Your task to perform on an android device: move an email to a new category in the gmail app Image 0: 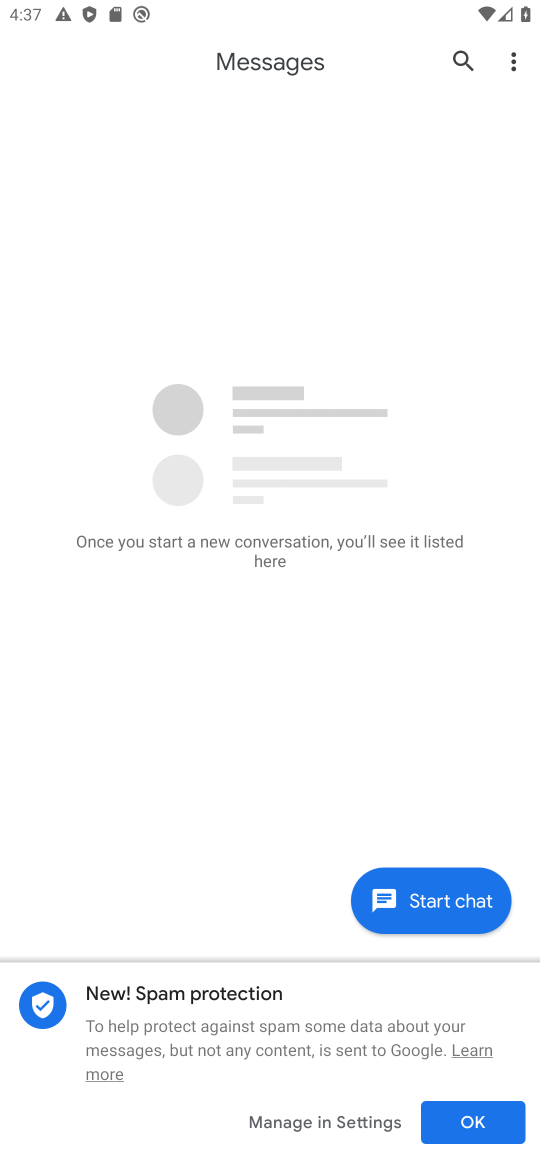
Step 0: press home button
Your task to perform on an android device: move an email to a new category in the gmail app Image 1: 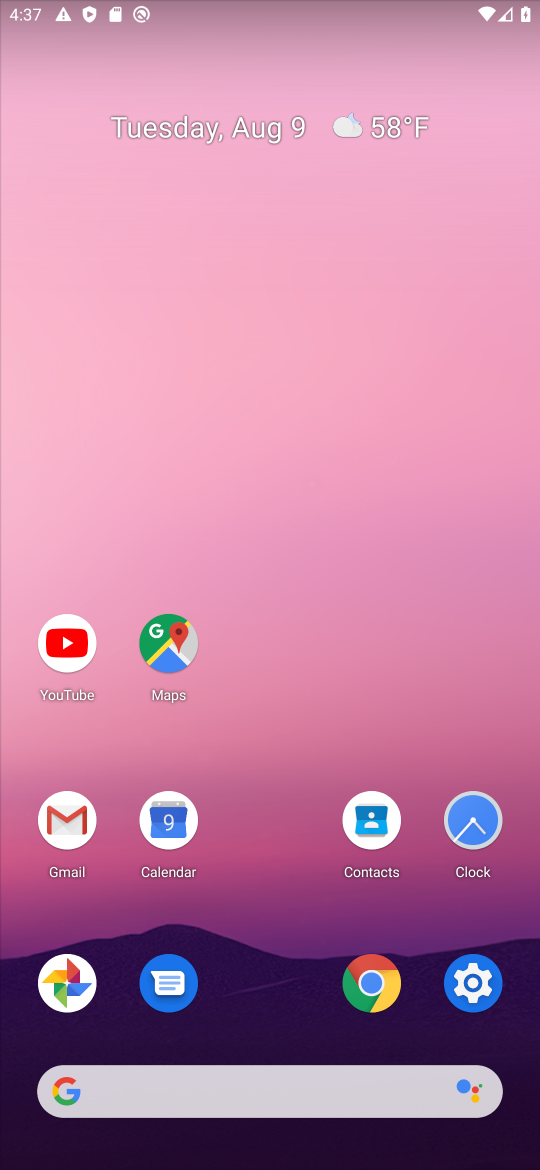
Step 1: click (71, 814)
Your task to perform on an android device: move an email to a new category in the gmail app Image 2: 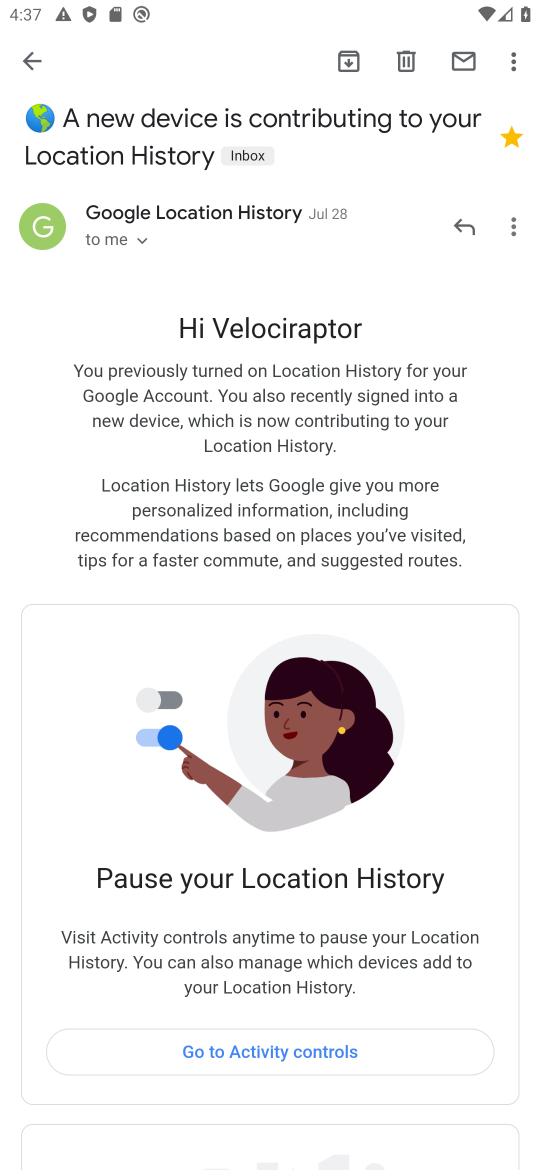
Step 2: click (506, 58)
Your task to perform on an android device: move an email to a new category in the gmail app Image 3: 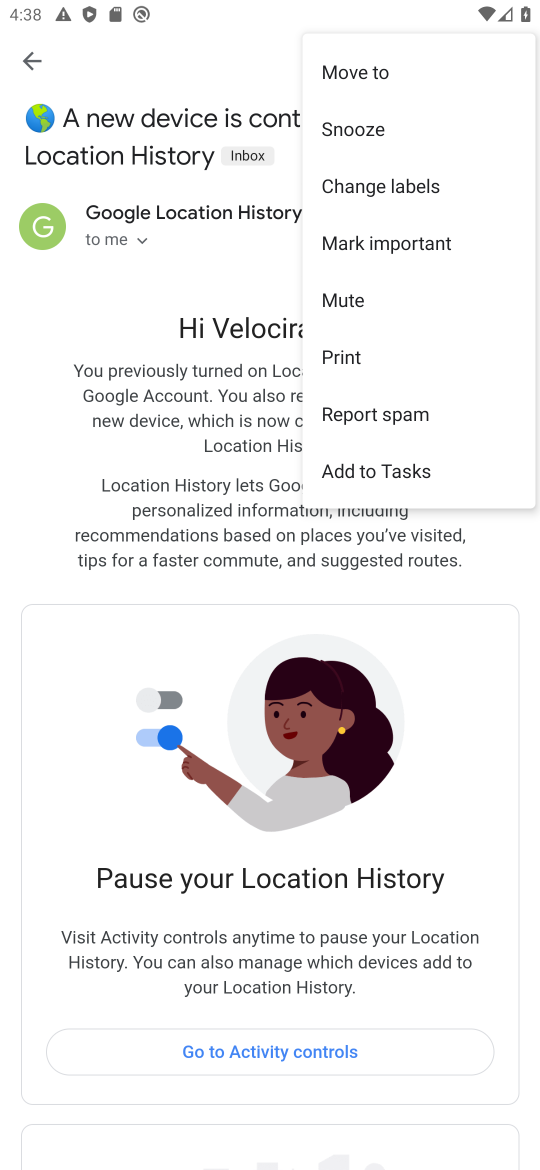
Step 3: click (368, 70)
Your task to perform on an android device: move an email to a new category in the gmail app Image 4: 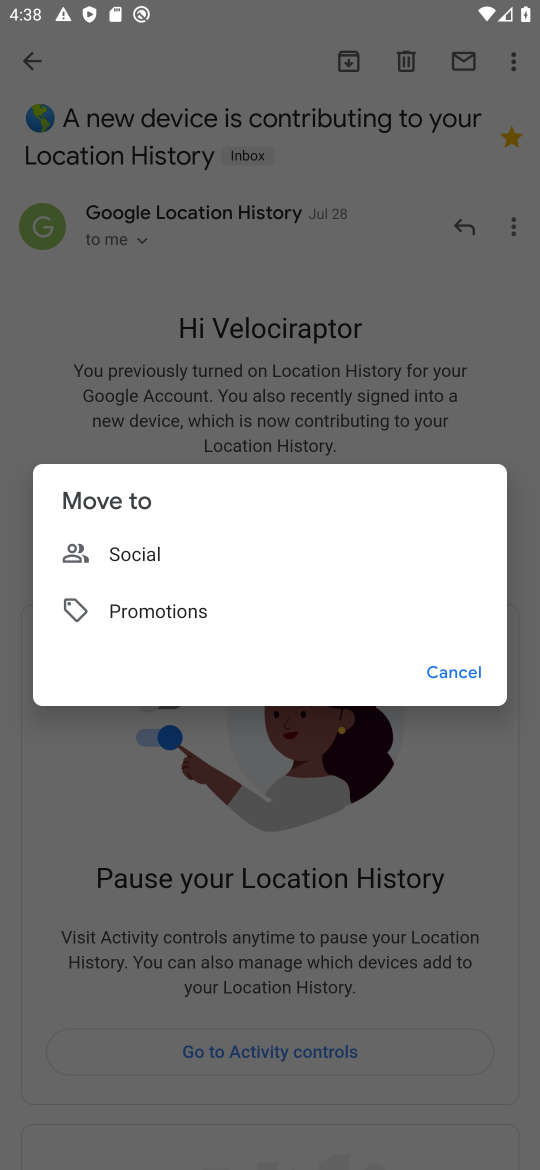
Step 4: click (130, 546)
Your task to perform on an android device: move an email to a new category in the gmail app Image 5: 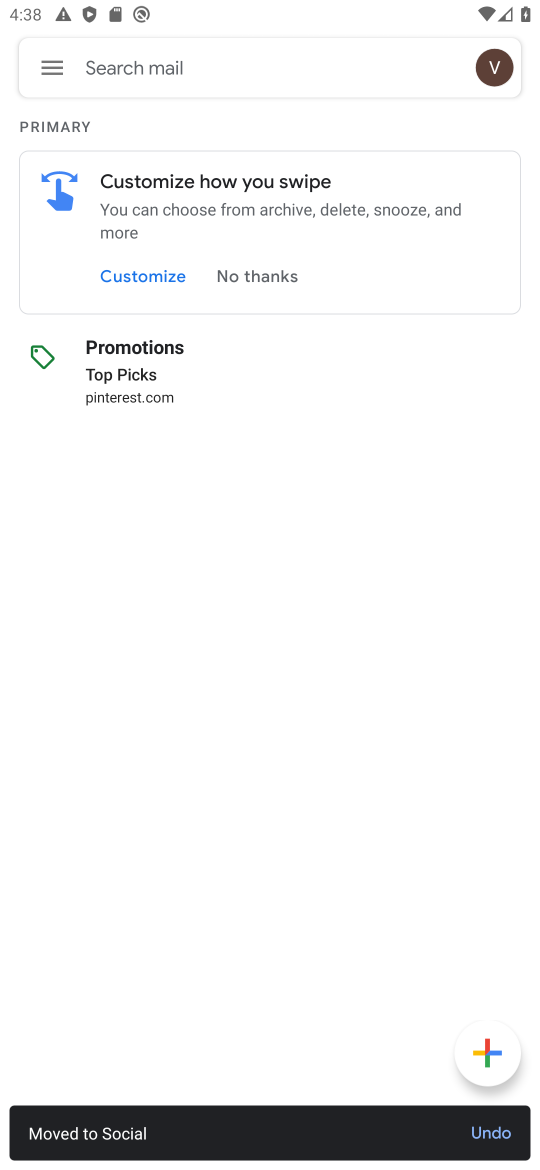
Step 5: task complete